Your task to perform on an android device: add a contact in the contacts app Image 0: 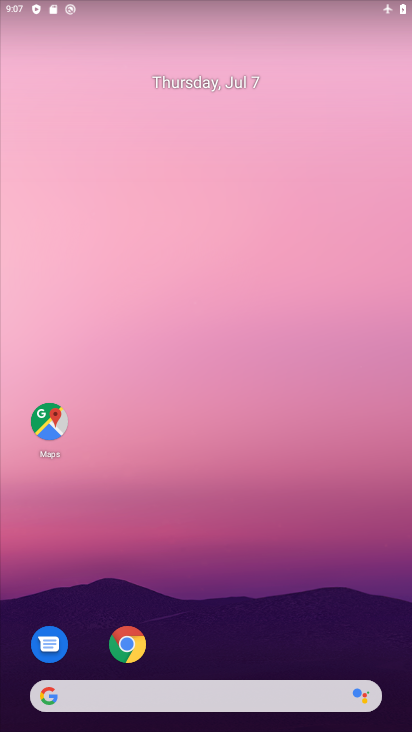
Step 0: drag from (280, 626) to (291, 95)
Your task to perform on an android device: add a contact in the contacts app Image 1: 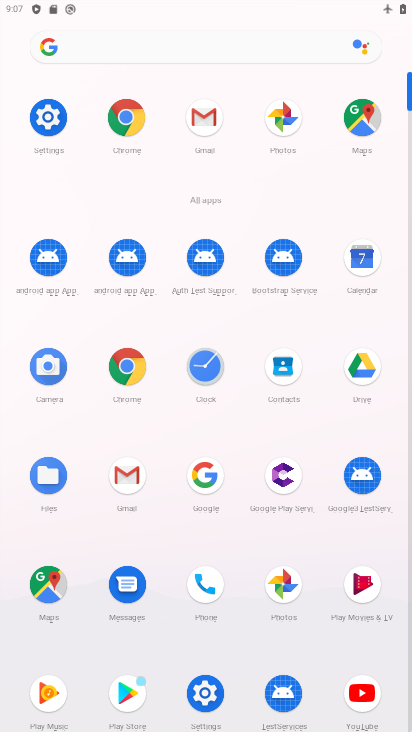
Step 1: click (283, 371)
Your task to perform on an android device: add a contact in the contacts app Image 2: 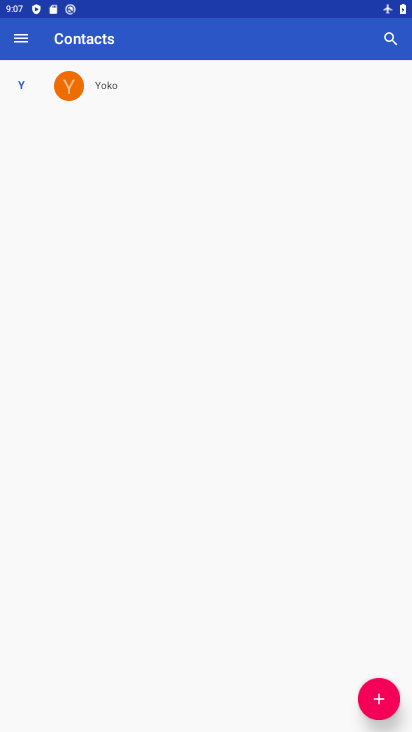
Step 2: click (386, 699)
Your task to perform on an android device: add a contact in the contacts app Image 3: 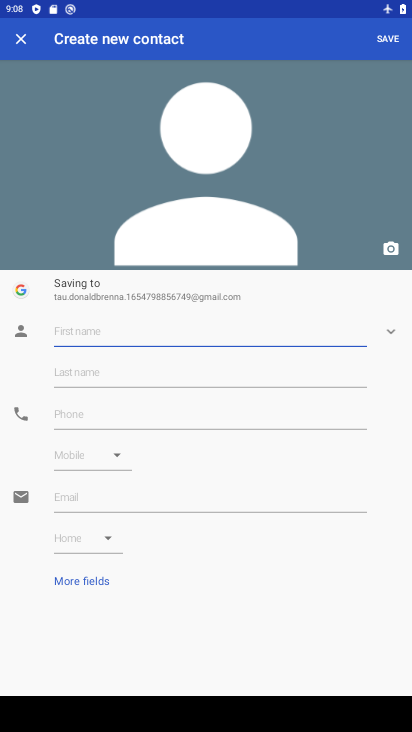
Step 3: type "zx"
Your task to perform on an android device: add a contact in the contacts app Image 4: 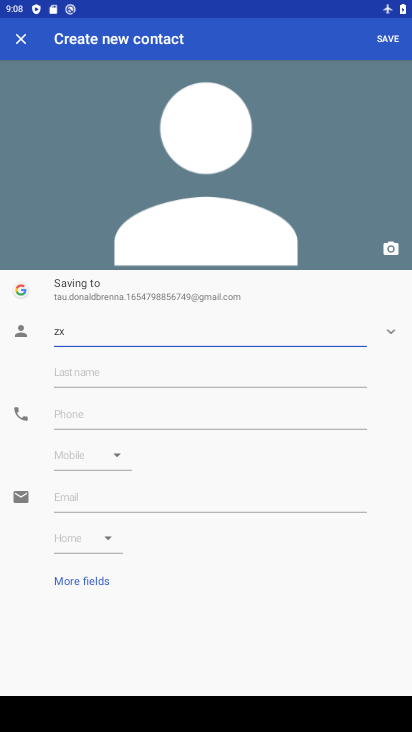
Step 4: click (392, 35)
Your task to perform on an android device: add a contact in the contacts app Image 5: 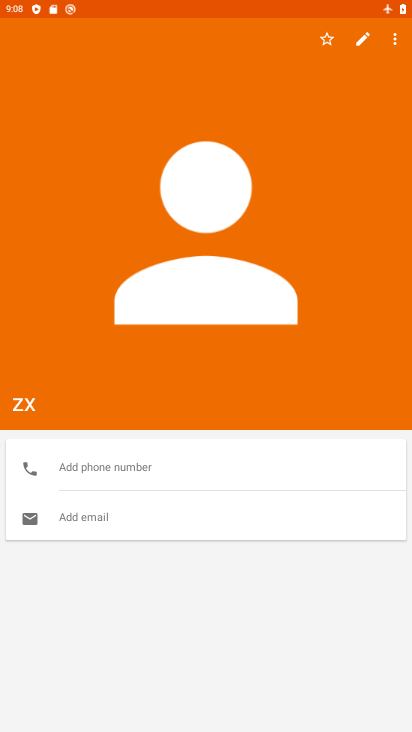
Step 5: task complete